Your task to perform on an android device: Open the stopwatch Image 0: 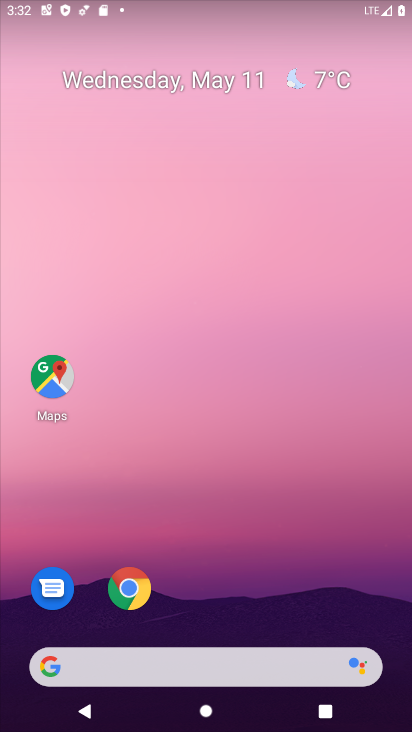
Step 0: drag from (233, 728) to (236, 156)
Your task to perform on an android device: Open the stopwatch Image 1: 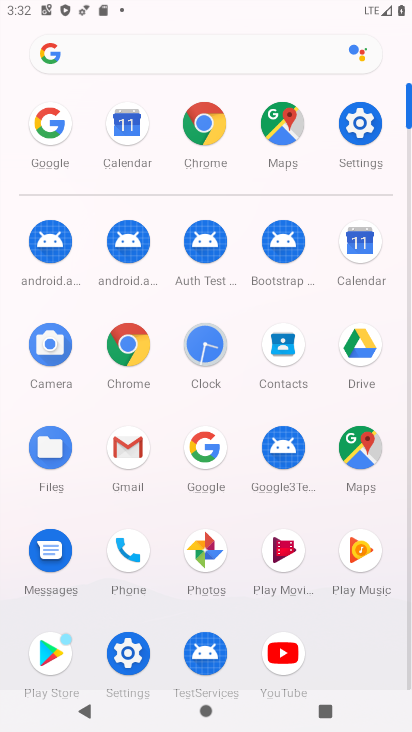
Step 1: click (202, 343)
Your task to perform on an android device: Open the stopwatch Image 2: 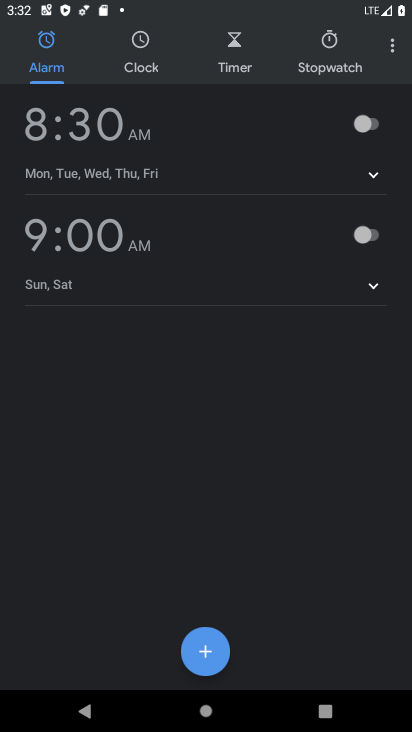
Step 2: click (327, 42)
Your task to perform on an android device: Open the stopwatch Image 3: 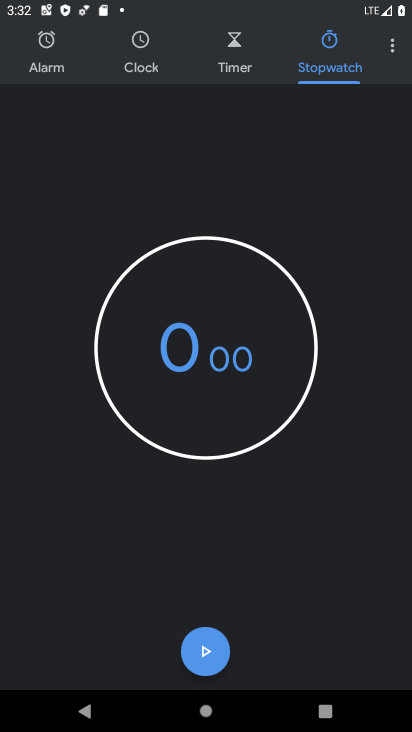
Step 3: task complete